Your task to perform on an android device: Open the stopwatch Image 0: 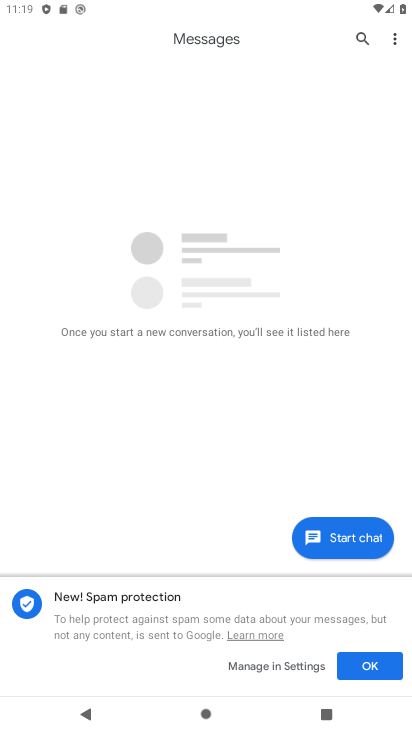
Step 0: press home button
Your task to perform on an android device: Open the stopwatch Image 1: 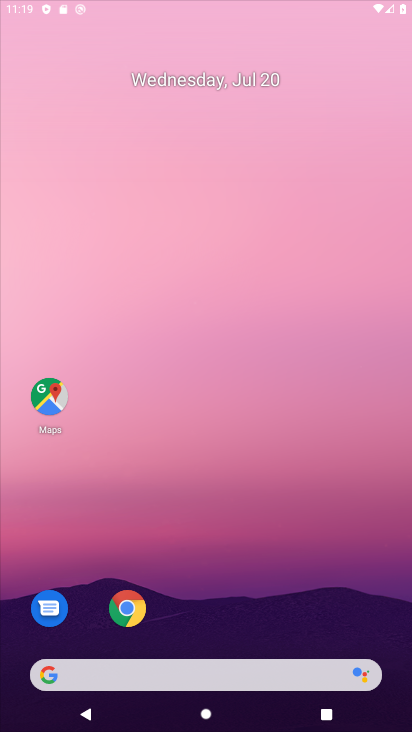
Step 1: drag from (397, 643) to (220, 62)
Your task to perform on an android device: Open the stopwatch Image 2: 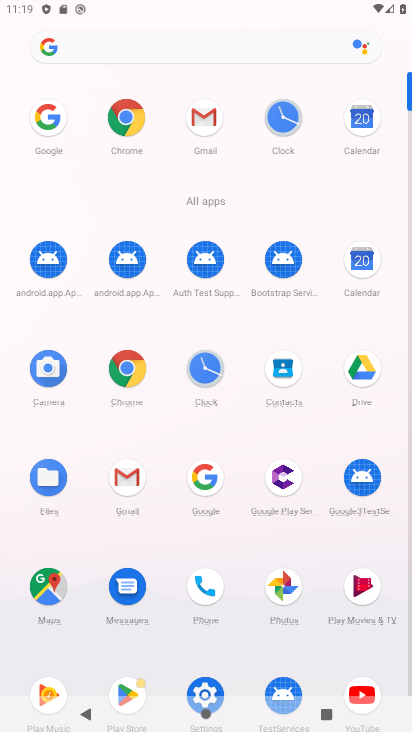
Step 2: click (207, 376)
Your task to perform on an android device: Open the stopwatch Image 3: 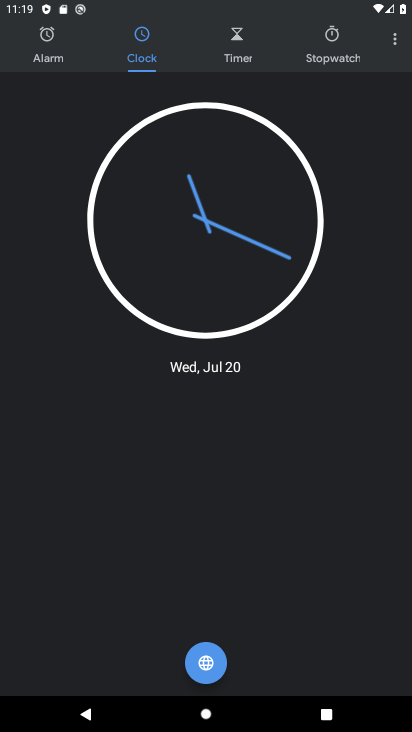
Step 3: click (326, 48)
Your task to perform on an android device: Open the stopwatch Image 4: 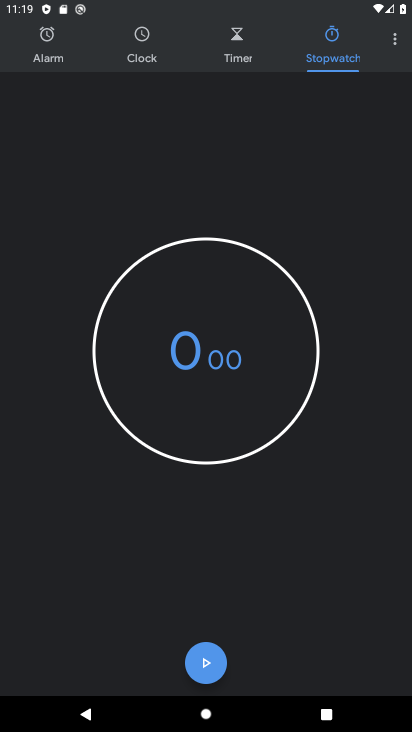
Step 4: task complete